Your task to perform on an android device: open app "Truecaller" Image 0: 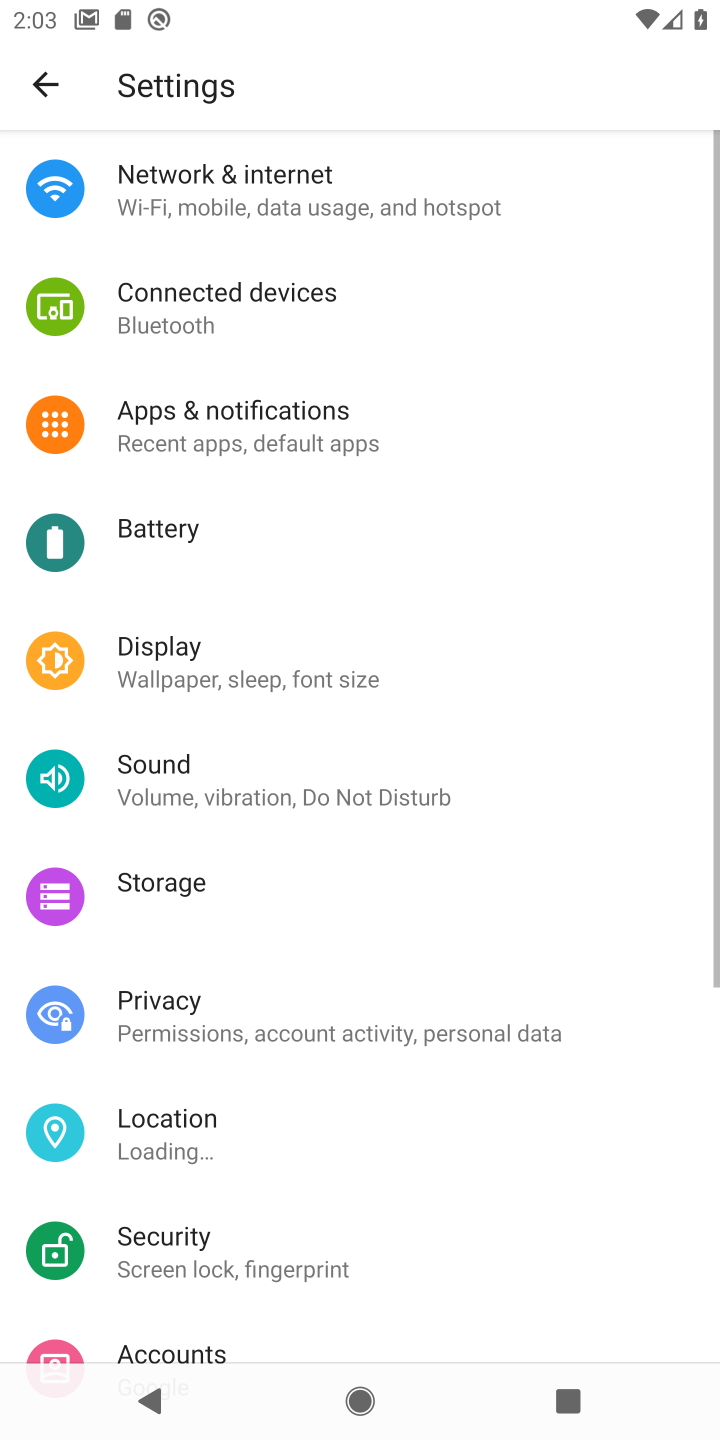
Step 0: press home button
Your task to perform on an android device: open app "Truecaller" Image 1: 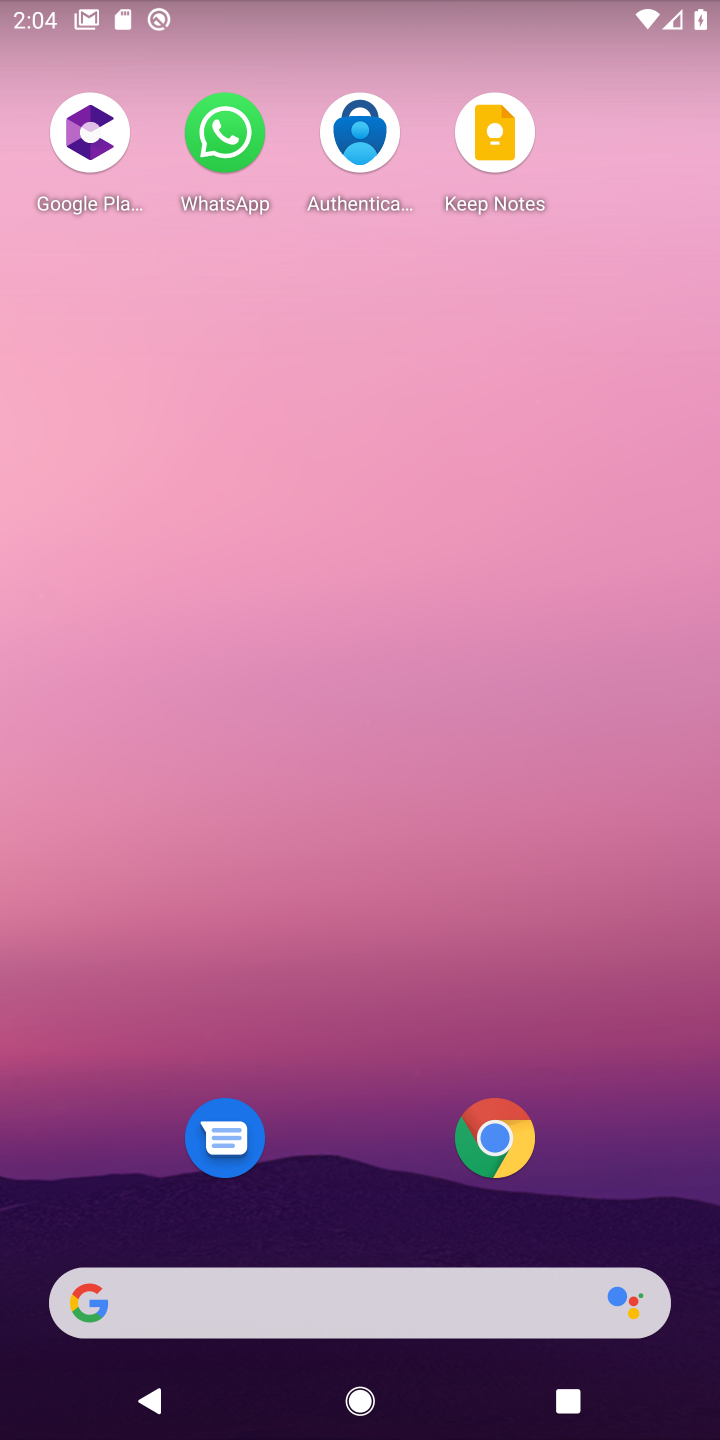
Step 1: drag from (569, 1130) to (691, 2)
Your task to perform on an android device: open app "Truecaller" Image 2: 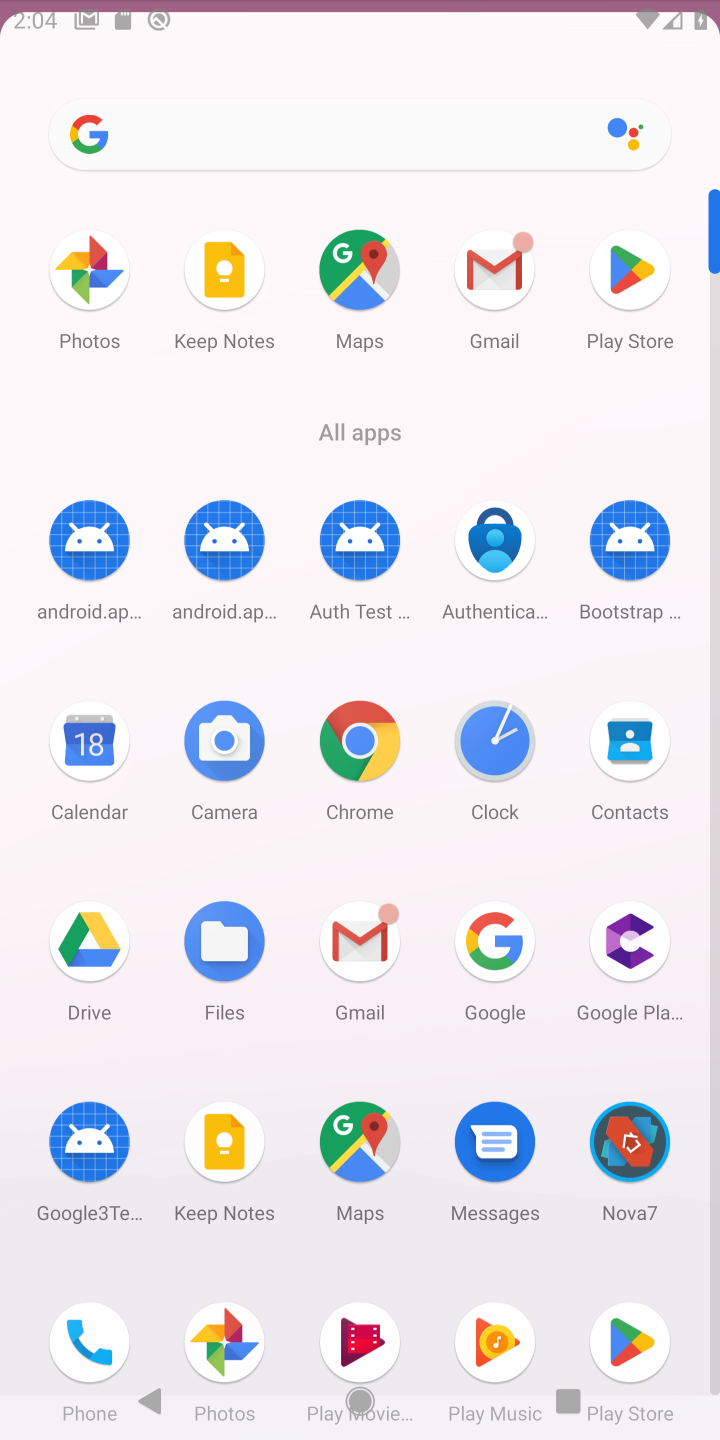
Step 2: drag from (490, 723) to (575, 193)
Your task to perform on an android device: open app "Truecaller" Image 3: 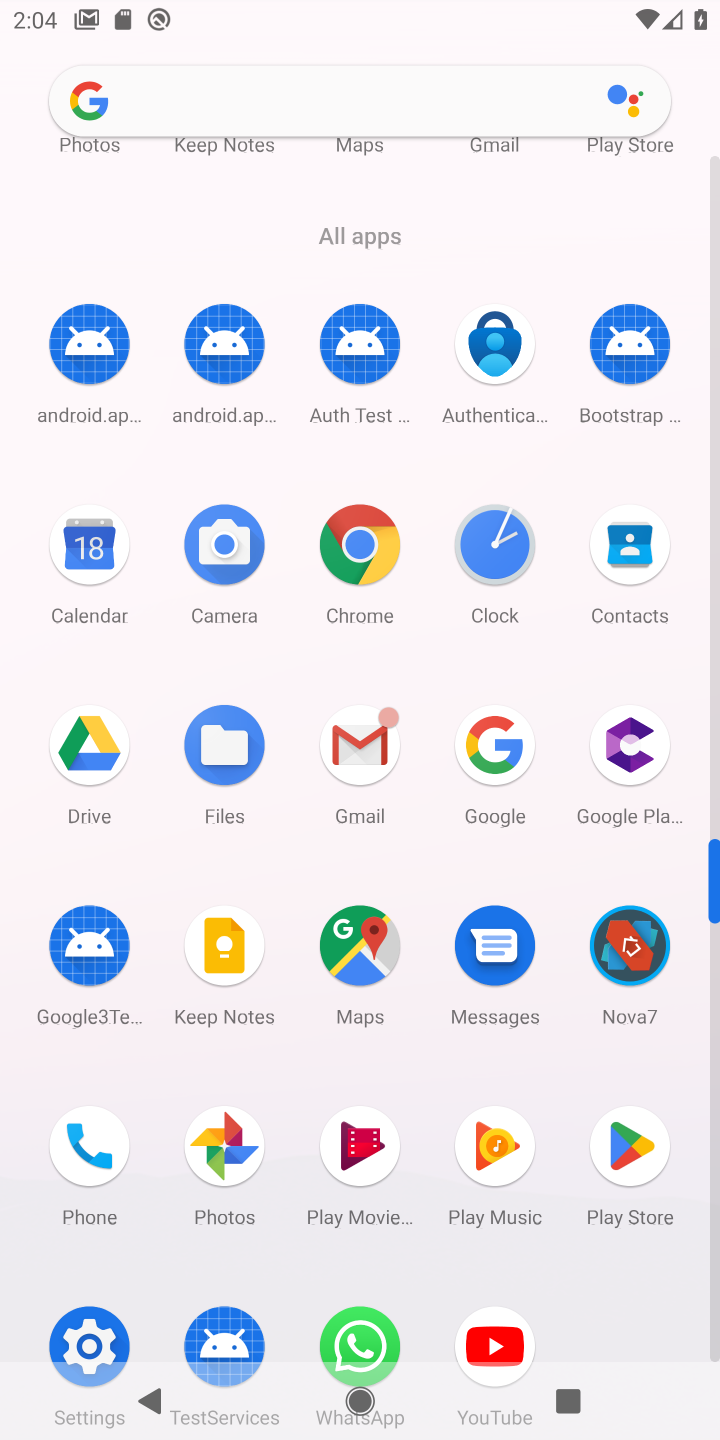
Step 3: click (634, 1140)
Your task to perform on an android device: open app "Truecaller" Image 4: 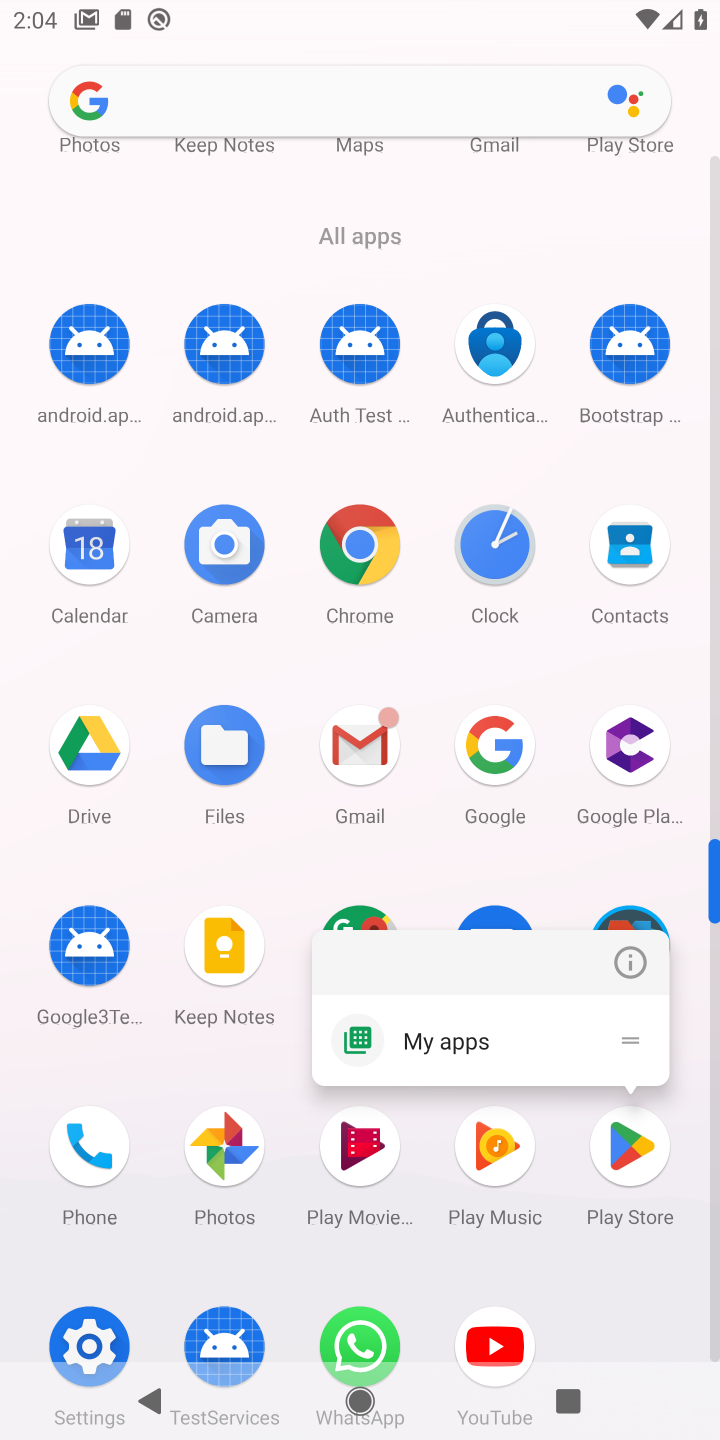
Step 4: click (669, 1172)
Your task to perform on an android device: open app "Truecaller" Image 5: 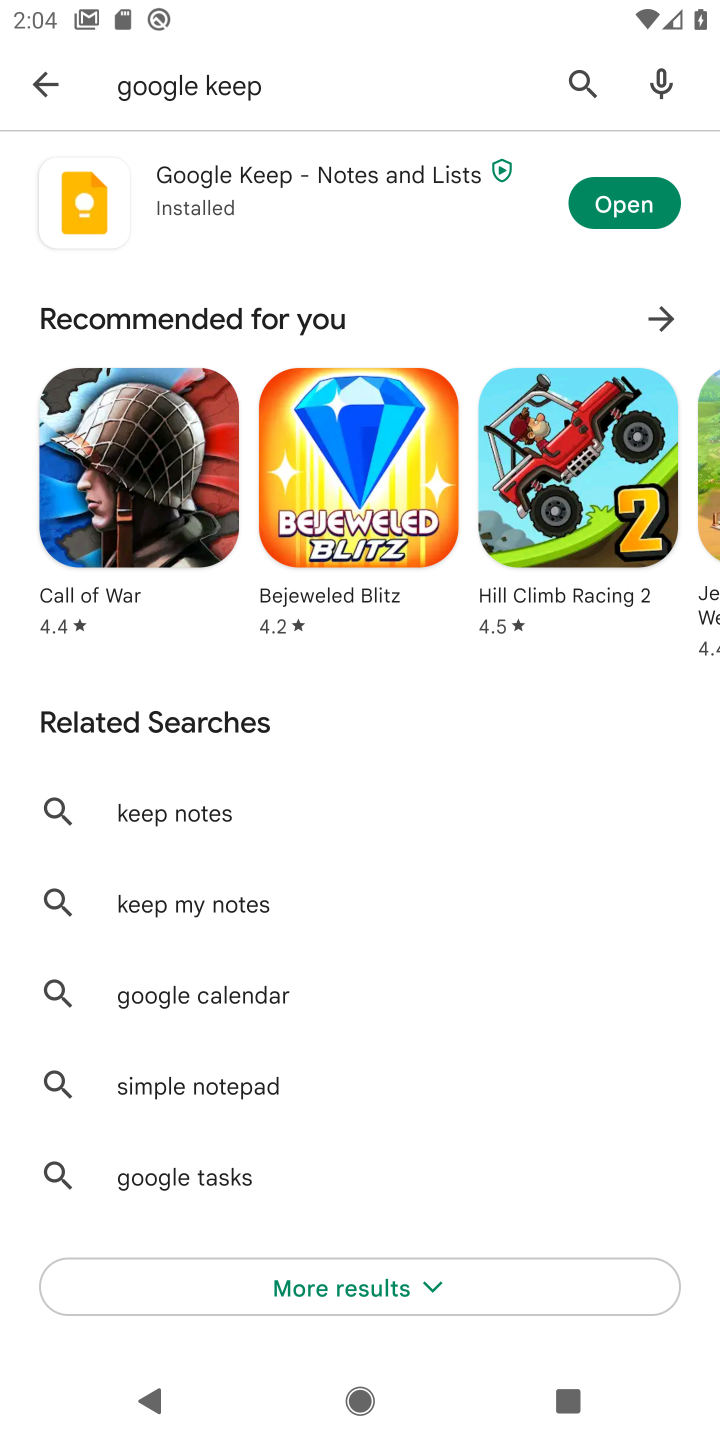
Step 5: click (655, 1198)
Your task to perform on an android device: open app "Truecaller" Image 6: 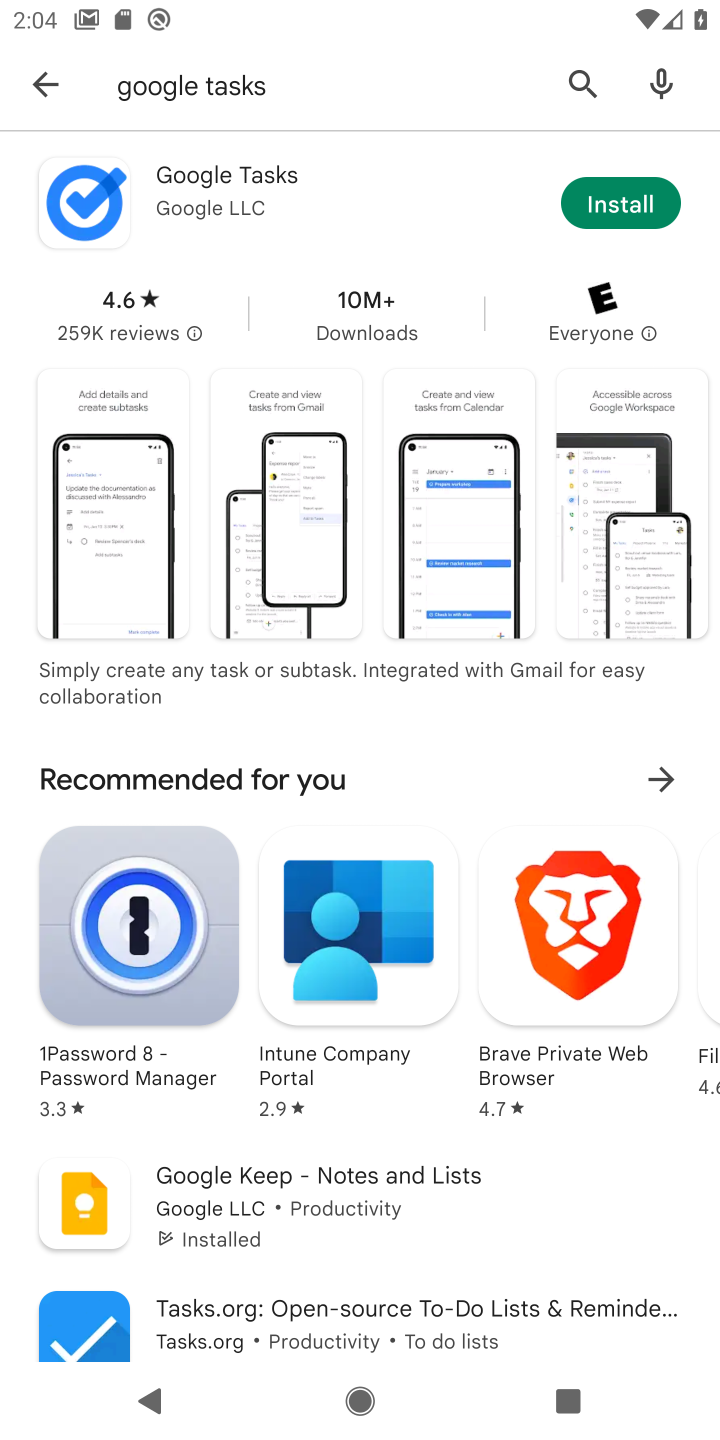
Step 6: click (49, 85)
Your task to perform on an android device: open app "Truecaller" Image 7: 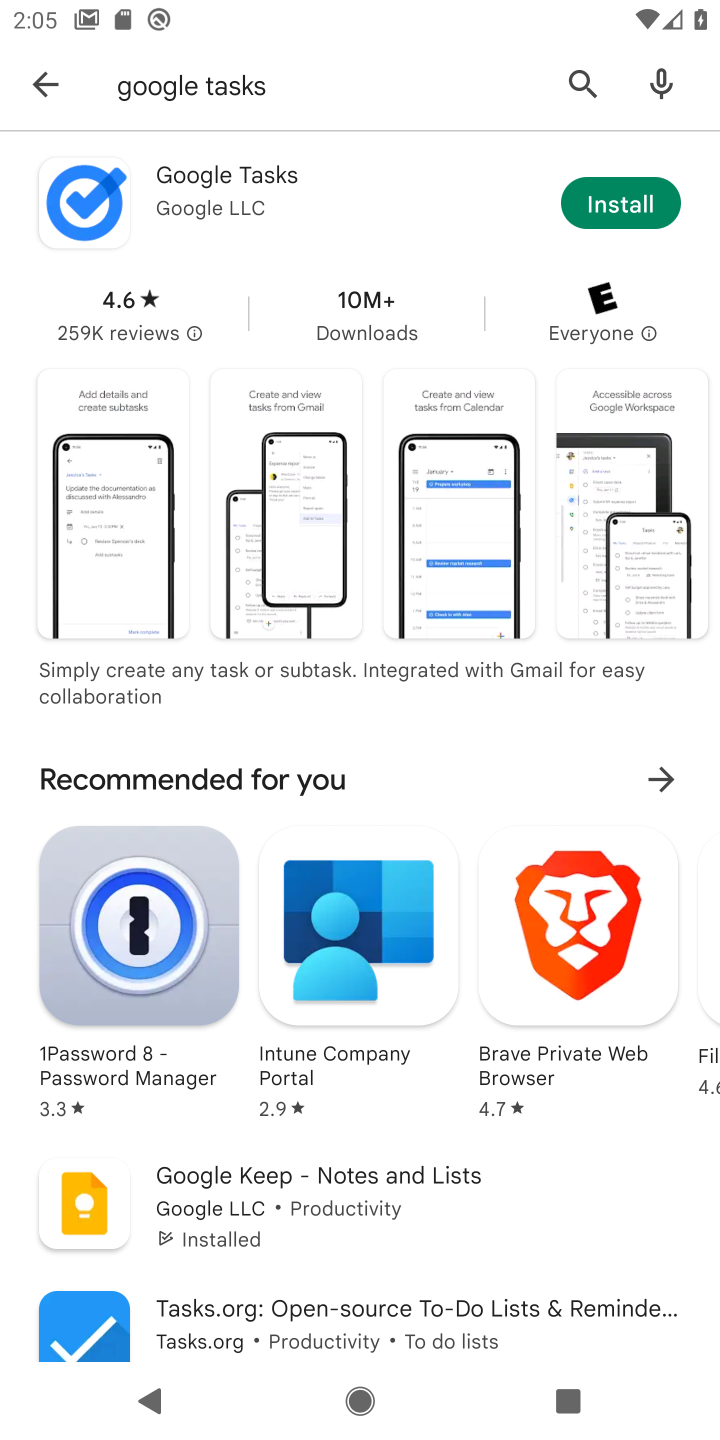
Step 7: click (51, 79)
Your task to perform on an android device: open app "Truecaller" Image 8: 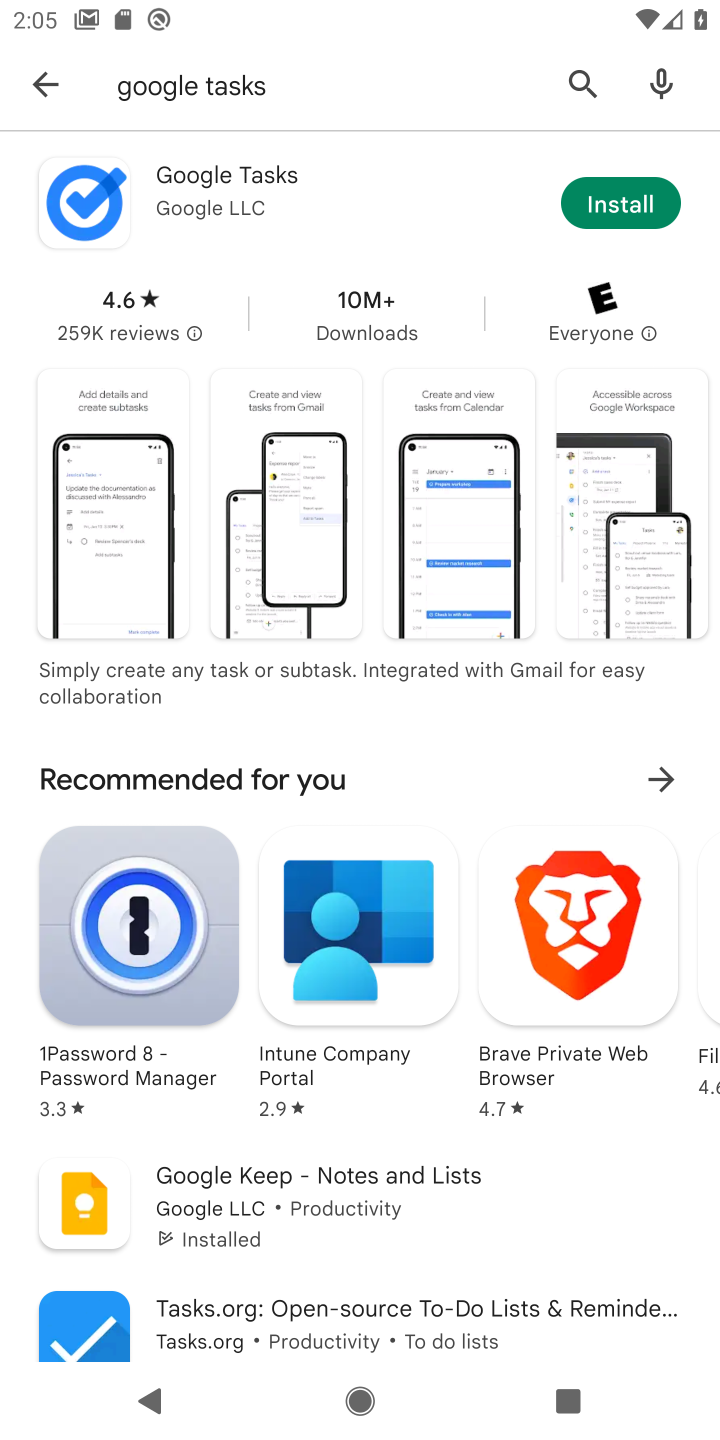
Step 8: click (55, 90)
Your task to perform on an android device: open app "Truecaller" Image 9: 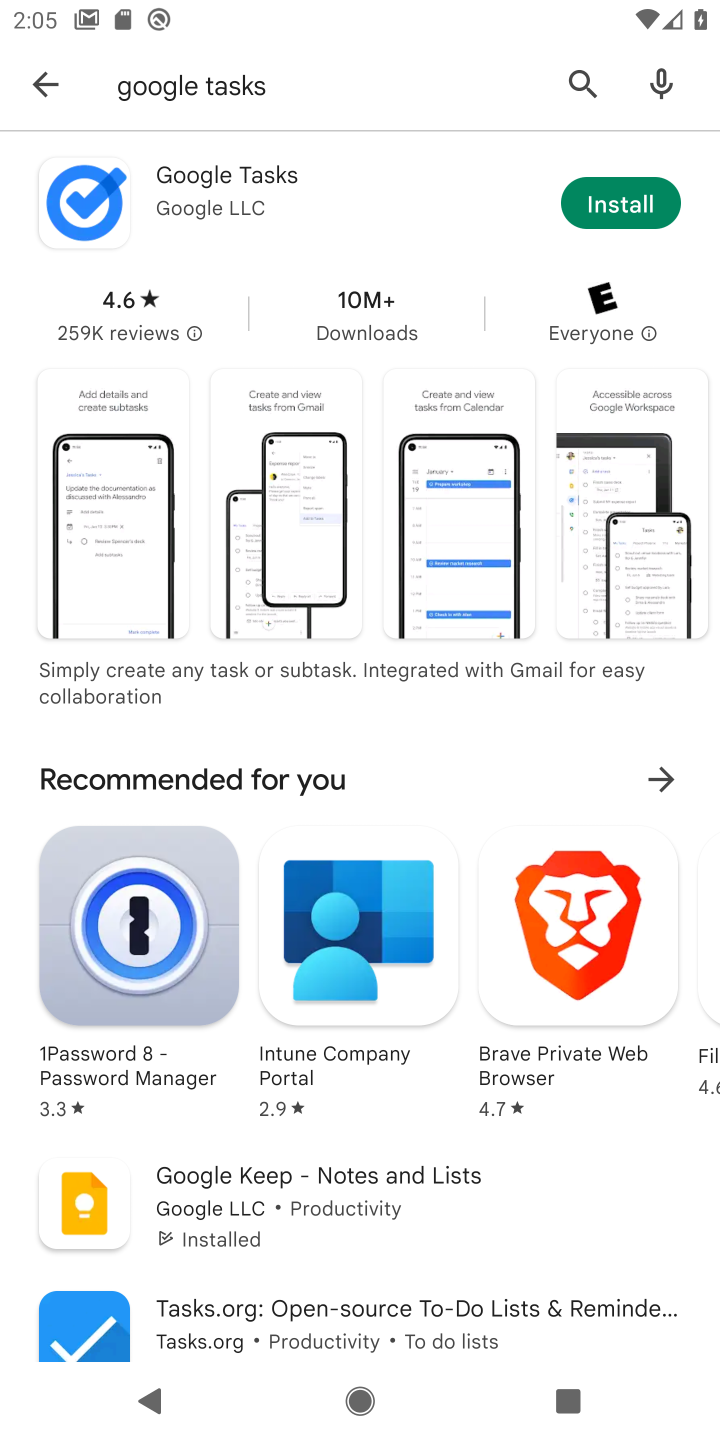
Step 9: click (75, 97)
Your task to perform on an android device: open app "Truecaller" Image 10: 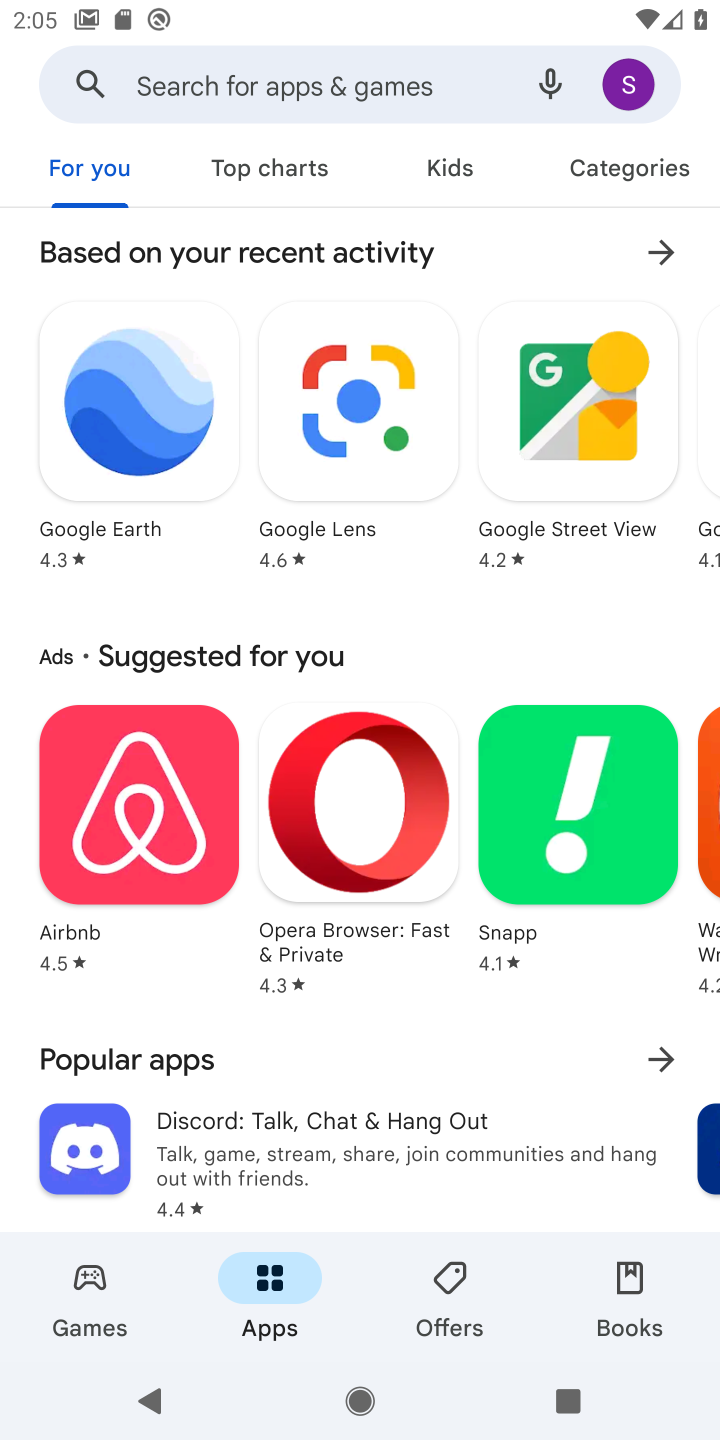
Step 10: click (318, 80)
Your task to perform on an android device: open app "Truecaller" Image 11: 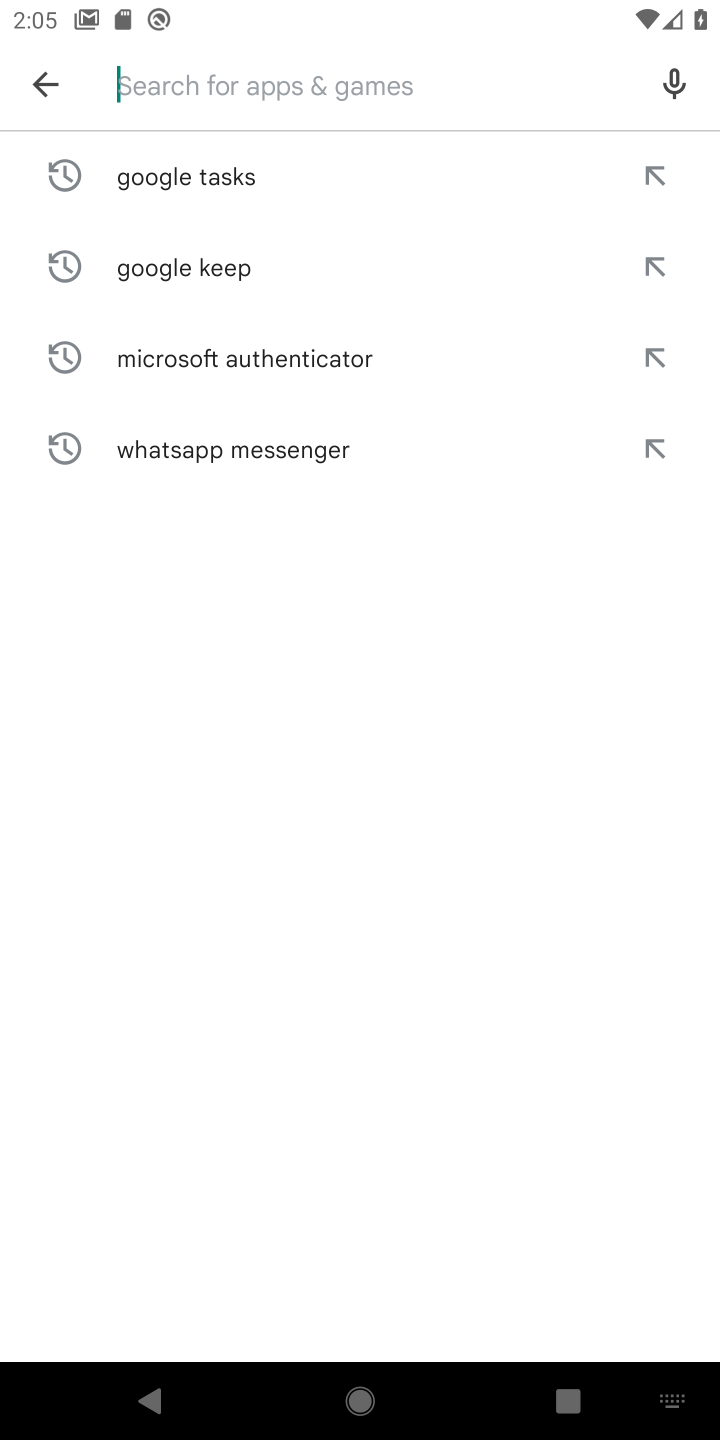
Step 11: type "Truecaller"
Your task to perform on an android device: open app "Truecaller" Image 12: 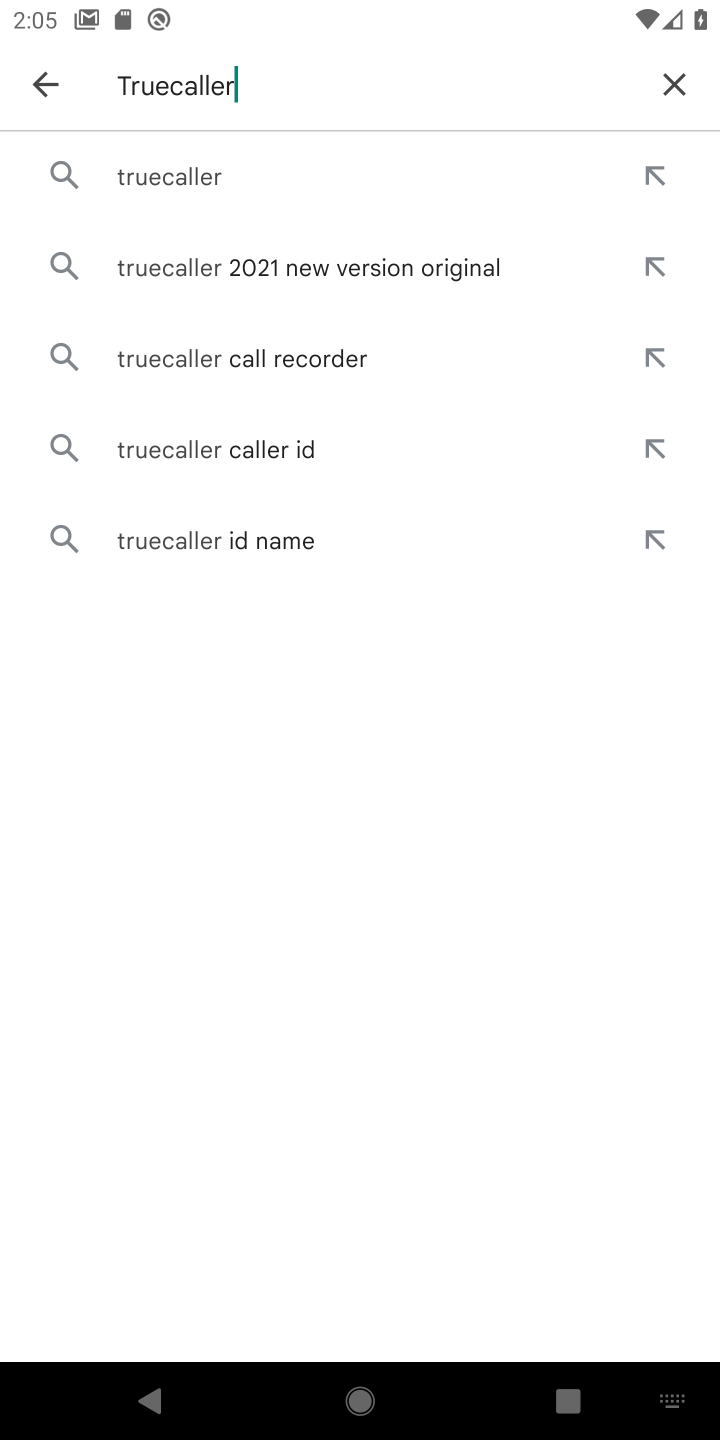
Step 12: click (290, 155)
Your task to perform on an android device: open app "Truecaller" Image 13: 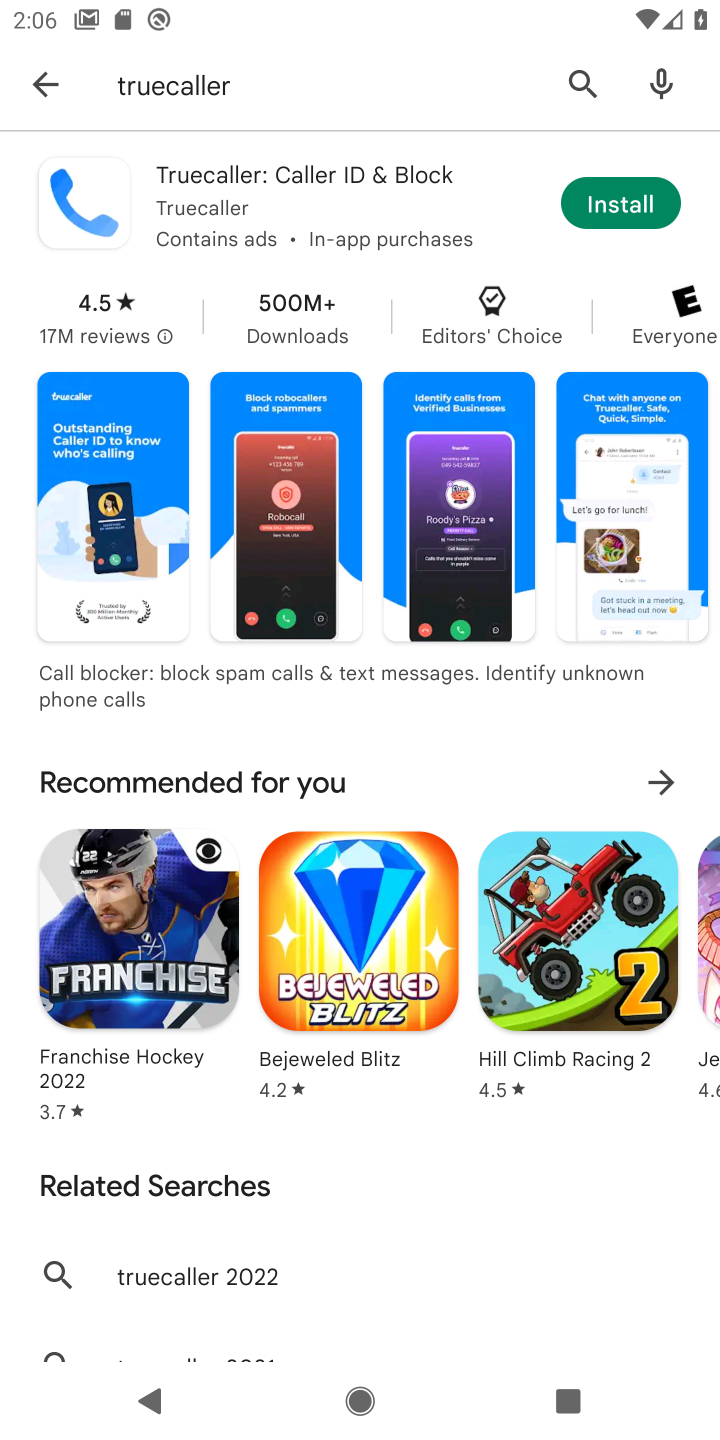
Step 13: task complete